Your task to perform on an android device: toggle airplane mode Image 0: 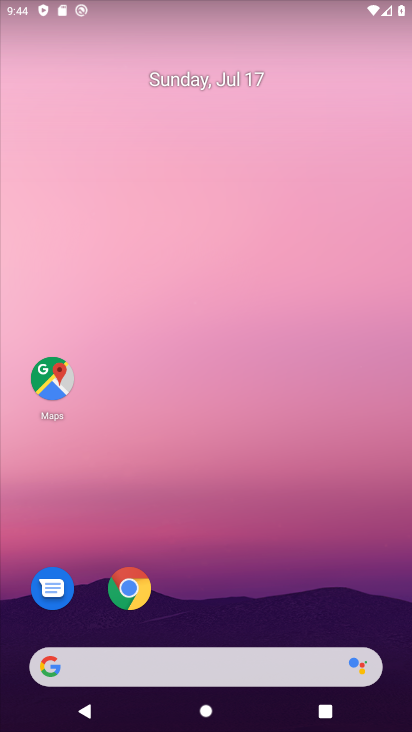
Step 0: drag from (271, 610) to (261, 59)
Your task to perform on an android device: toggle airplane mode Image 1: 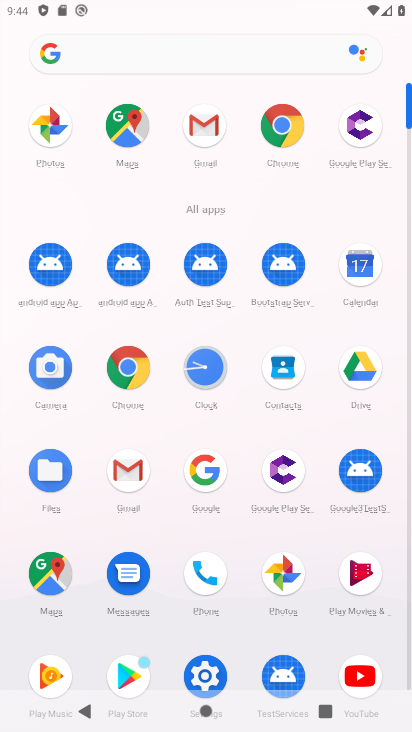
Step 1: click (208, 662)
Your task to perform on an android device: toggle airplane mode Image 2: 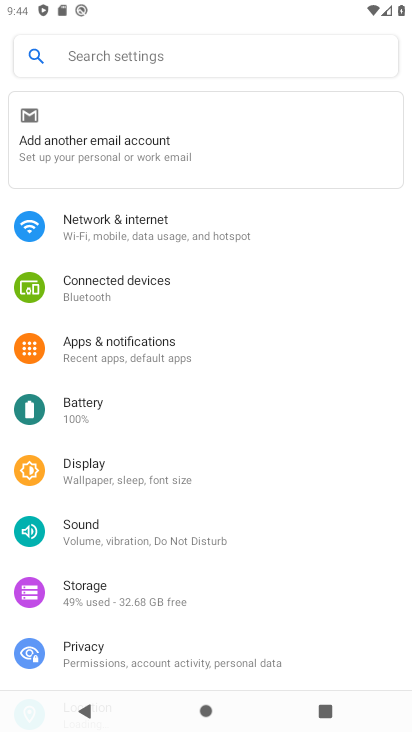
Step 2: click (218, 225)
Your task to perform on an android device: toggle airplane mode Image 3: 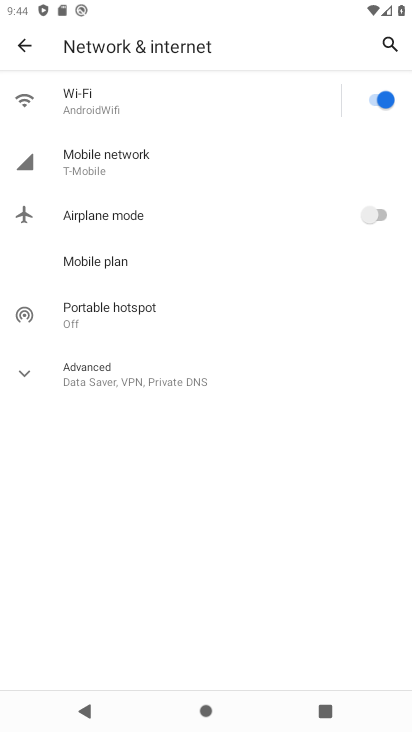
Step 3: click (383, 220)
Your task to perform on an android device: toggle airplane mode Image 4: 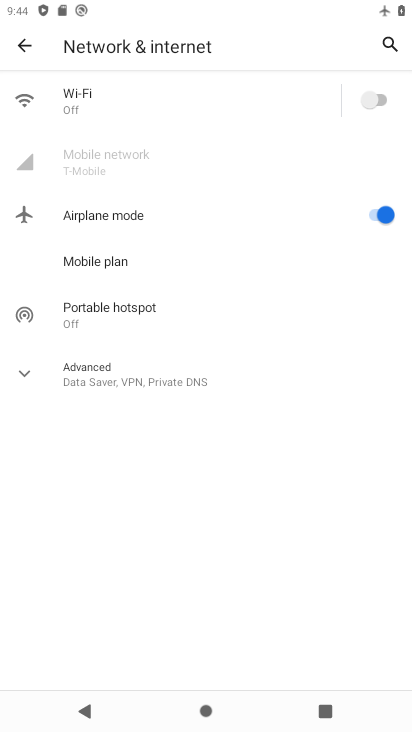
Step 4: task complete